Your task to perform on an android device: Open Youtube and go to the subscriptions tab Image 0: 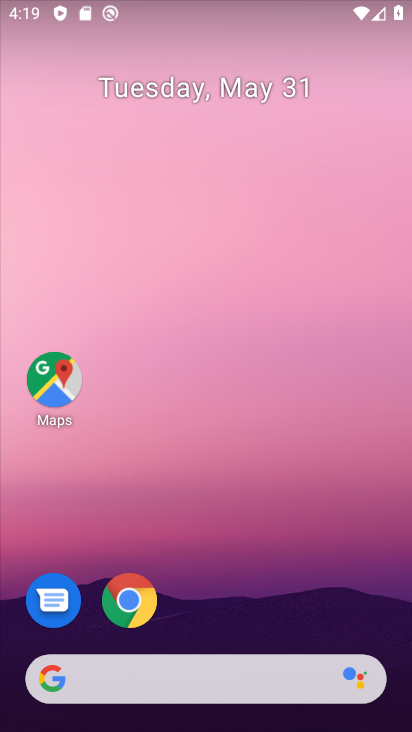
Step 0: drag from (256, 593) to (314, 274)
Your task to perform on an android device: Open Youtube and go to the subscriptions tab Image 1: 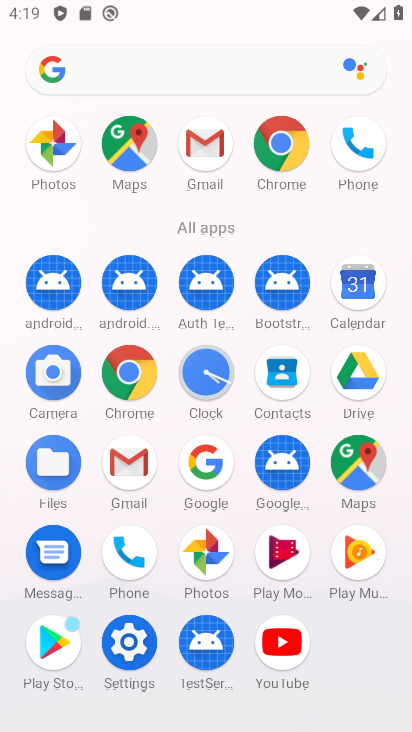
Step 1: click (277, 627)
Your task to perform on an android device: Open Youtube and go to the subscriptions tab Image 2: 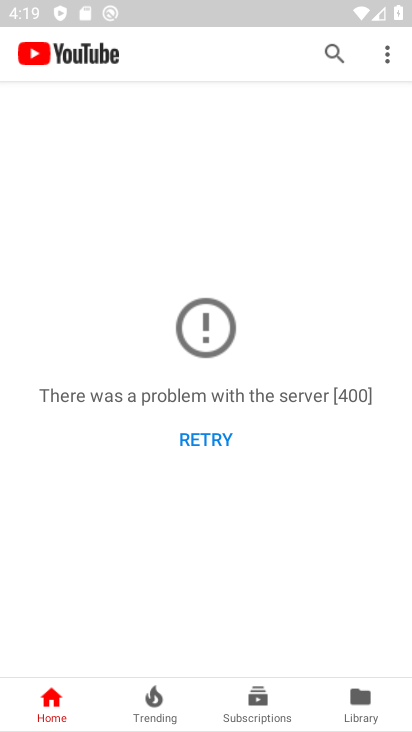
Step 2: click (287, 711)
Your task to perform on an android device: Open Youtube and go to the subscriptions tab Image 3: 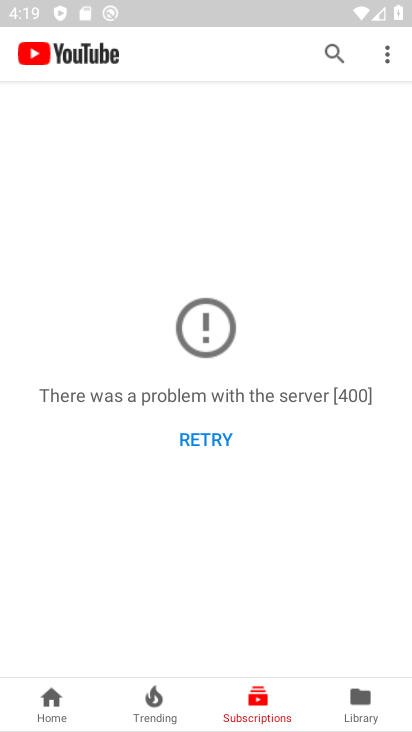
Step 3: task complete